Your task to perform on an android device: Search for vegetarian restaurants on Maps Image 0: 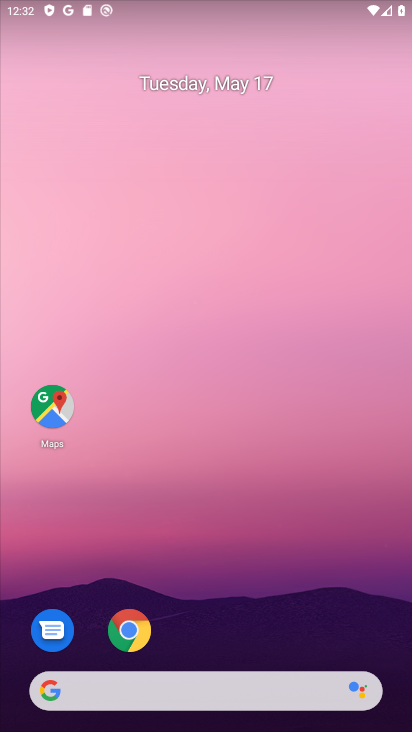
Step 0: click (55, 400)
Your task to perform on an android device: Search for vegetarian restaurants on Maps Image 1: 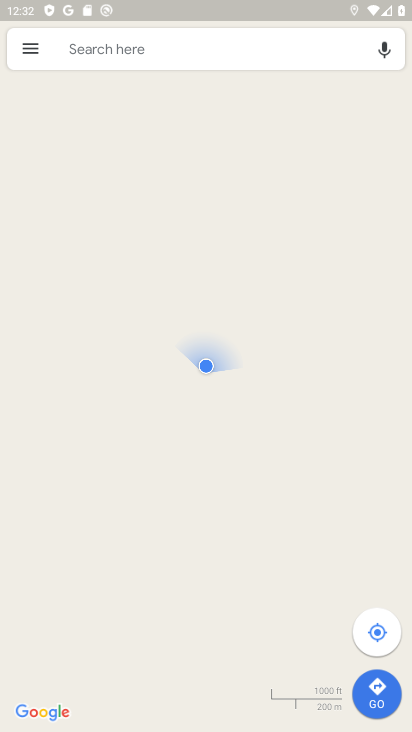
Step 1: click (251, 54)
Your task to perform on an android device: Search for vegetarian restaurants on Maps Image 2: 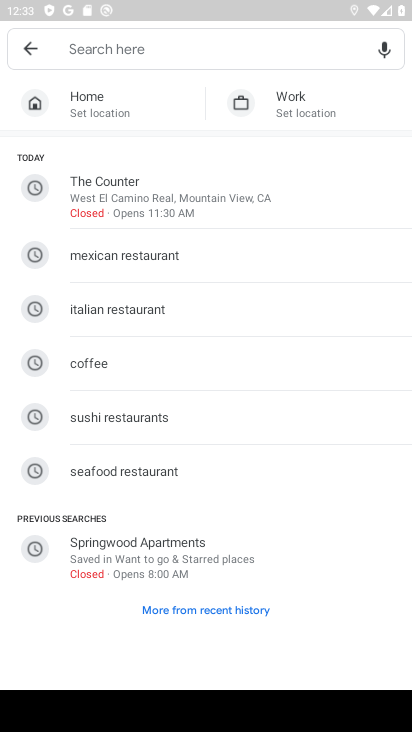
Step 2: type "vegetarian"
Your task to perform on an android device: Search for vegetarian restaurants on Maps Image 3: 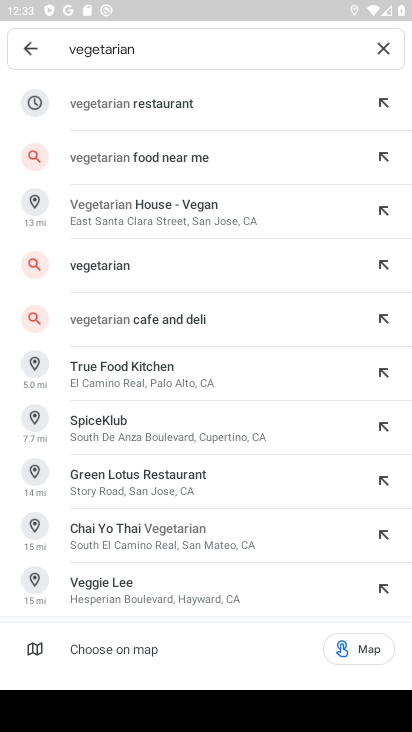
Step 3: click (166, 113)
Your task to perform on an android device: Search for vegetarian restaurants on Maps Image 4: 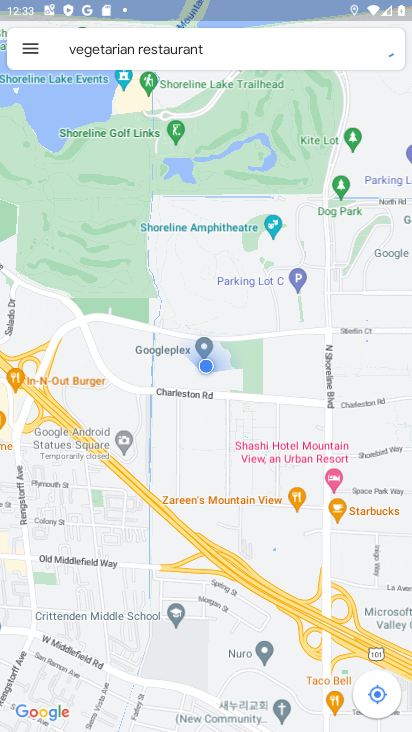
Step 4: task complete